Your task to perform on an android device: Open the calendar app, open the side menu, and click the "Day" option Image 0: 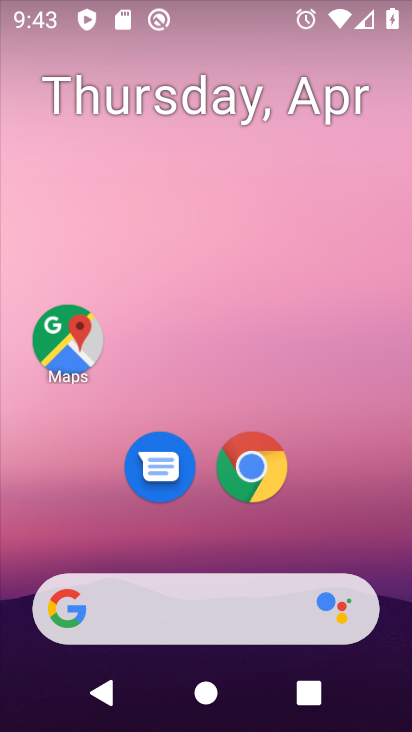
Step 0: drag from (392, 545) to (315, 276)
Your task to perform on an android device: Open the calendar app, open the side menu, and click the "Day" option Image 1: 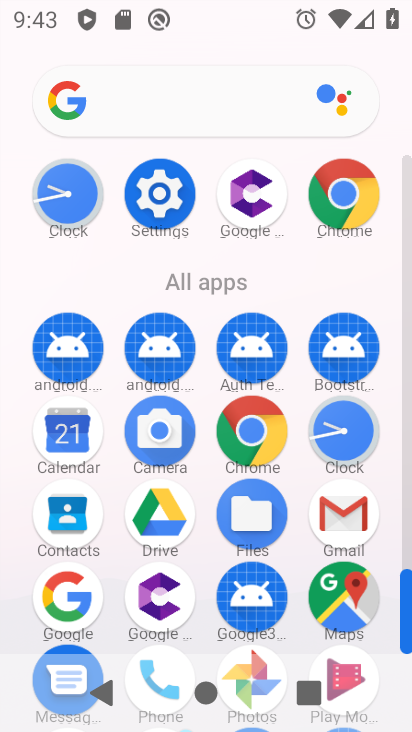
Step 1: click (76, 445)
Your task to perform on an android device: Open the calendar app, open the side menu, and click the "Day" option Image 2: 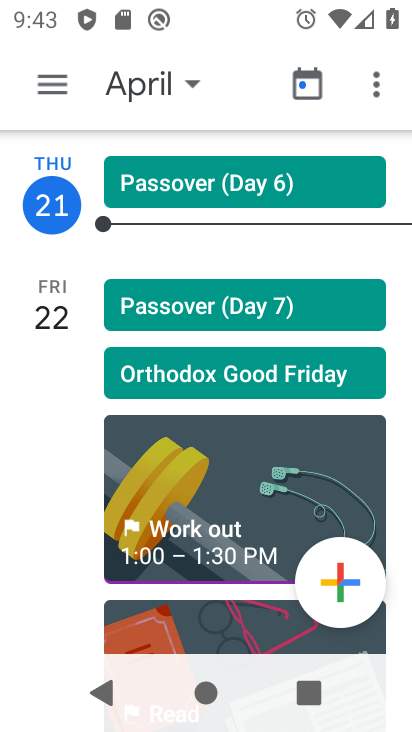
Step 2: click (60, 86)
Your task to perform on an android device: Open the calendar app, open the side menu, and click the "Day" option Image 3: 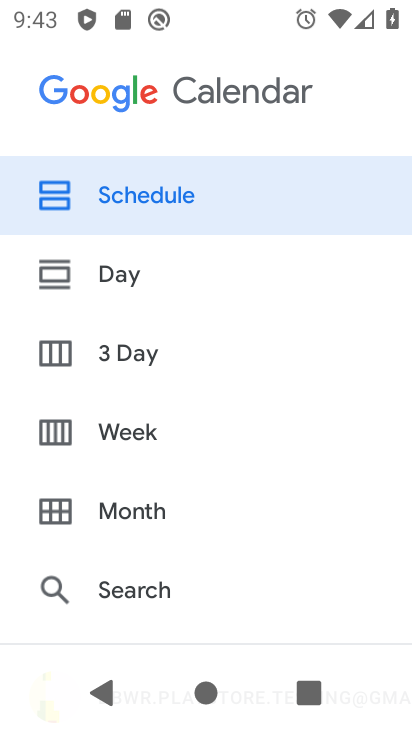
Step 3: click (159, 291)
Your task to perform on an android device: Open the calendar app, open the side menu, and click the "Day" option Image 4: 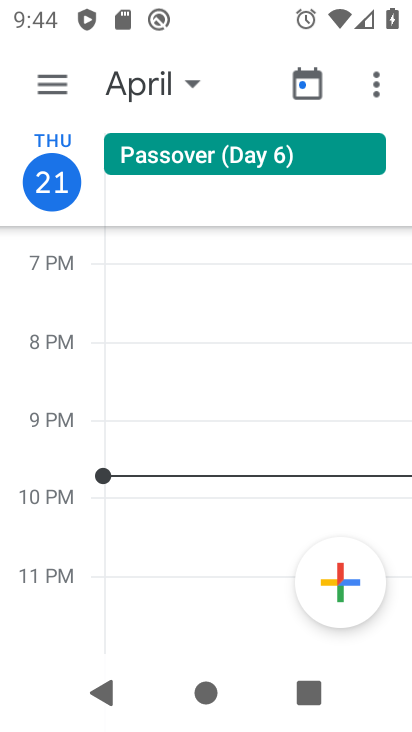
Step 4: task complete